Your task to perform on an android device: Open location settings Image 0: 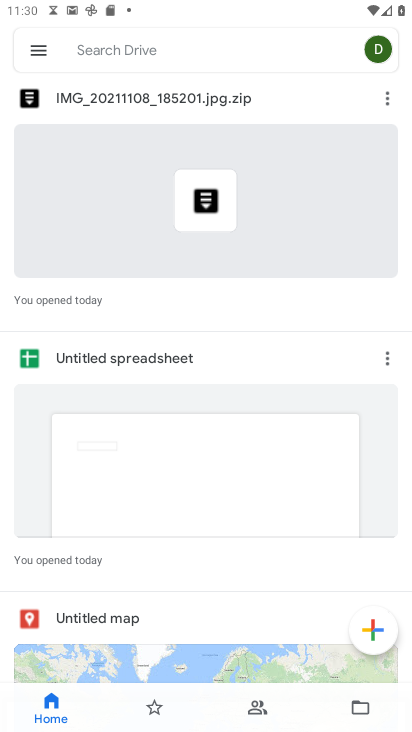
Step 0: press home button
Your task to perform on an android device: Open location settings Image 1: 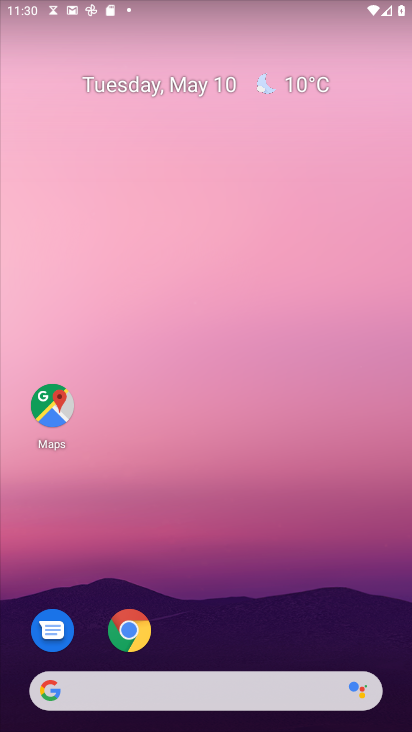
Step 1: drag from (251, 628) to (262, 49)
Your task to perform on an android device: Open location settings Image 2: 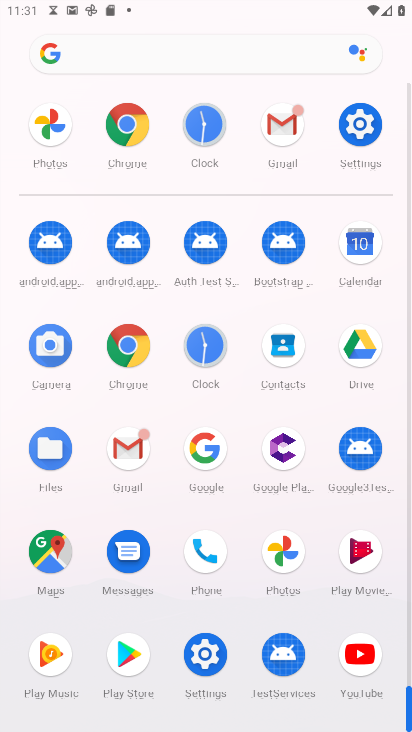
Step 2: click (364, 127)
Your task to perform on an android device: Open location settings Image 3: 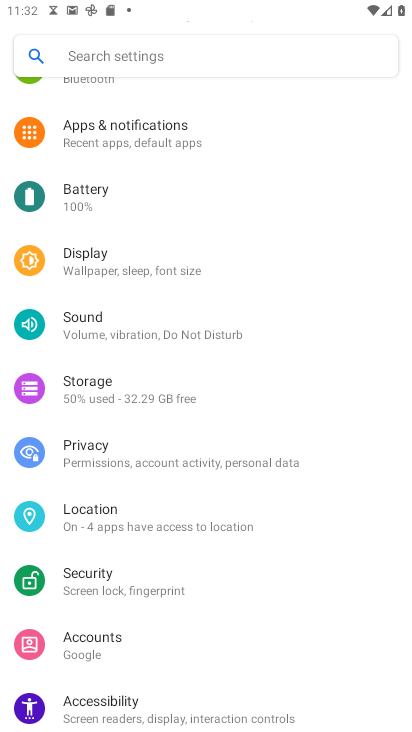
Step 3: click (171, 522)
Your task to perform on an android device: Open location settings Image 4: 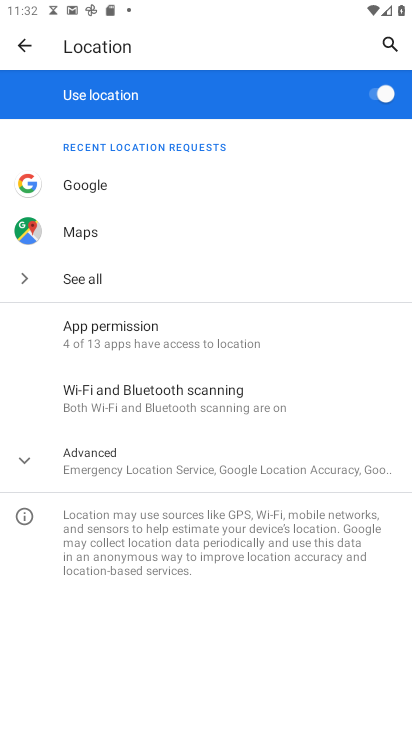
Step 4: task complete